Your task to perform on an android device: Open Youtube and go to "Your channel" Image 0: 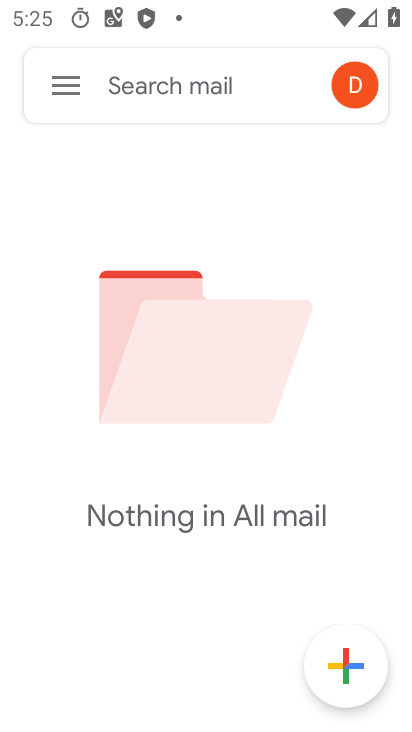
Step 0: press home button
Your task to perform on an android device: Open Youtube and go to "Your channel" Image 1: 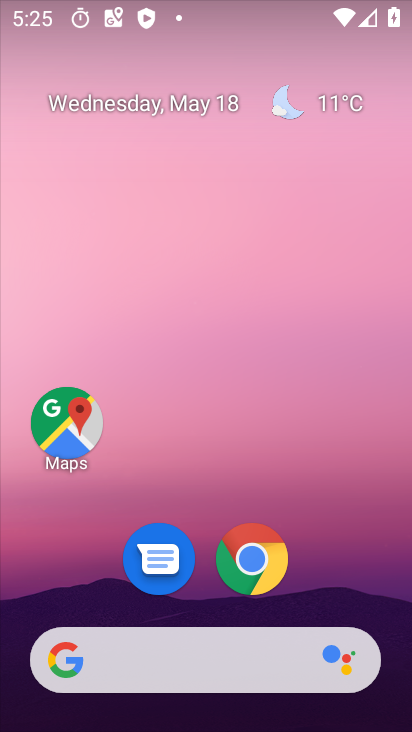
Step 1: drag from (194, 560) to (263, 18)
Your task to perform on an android device: Open Youtube and go to "Your channel" Image 2: 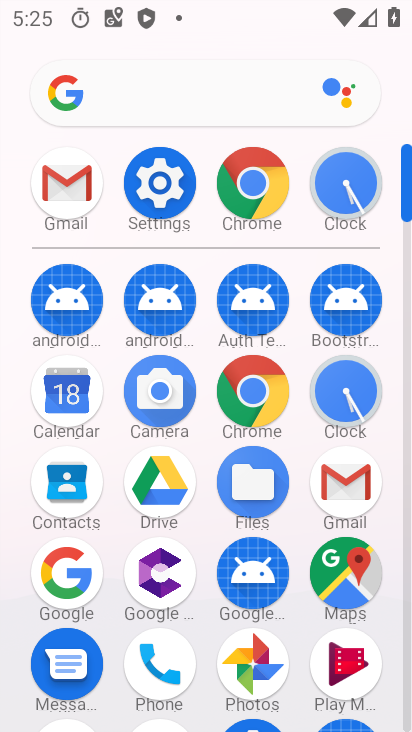
Step 2: drag from (215, 670) to (278, 58)
Your task to perform on an android device: Open Youtube and go to "Your channel" Image 3: 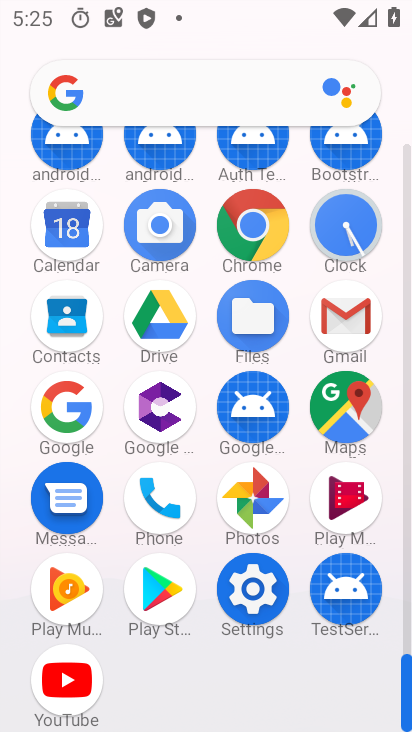
Step 3: click (43, 682)
Your task to perform on an android device: Open Youtube and go to "Your channel" Image 4: 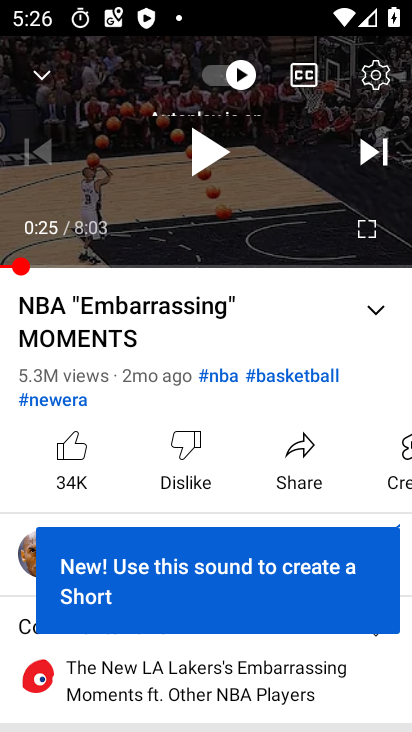
Step 4: click (46, 73)
Your task to perform on an android device: Open Youtube and go to "Your channel" Image 5: 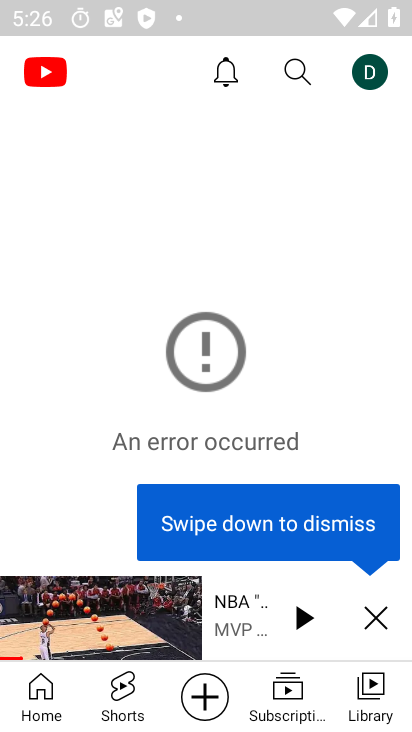
Step 5: click (371, 63)
Your task to perform on an android device: Open Youtube and go to "Your channel" Image 6: 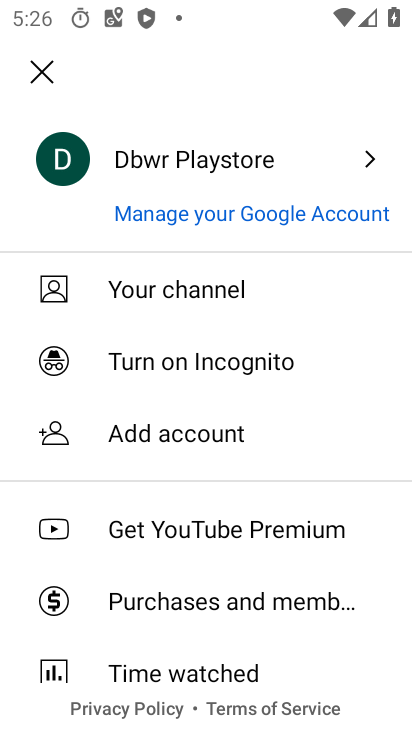
Step 6: click (165, 298)
Your task to perform on an android device: Open Youtube and go to "Your channel" Image 7: 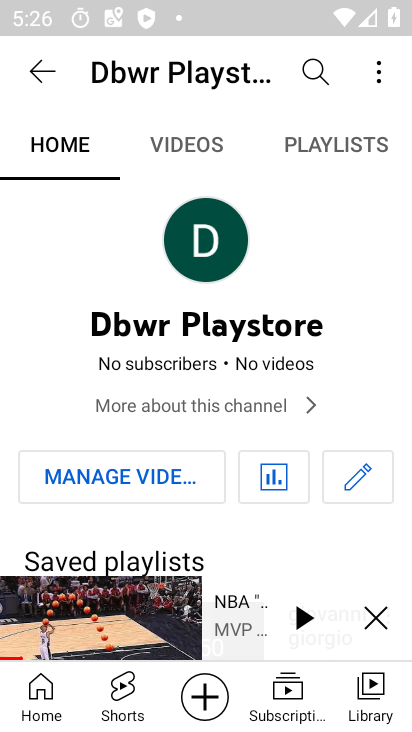
Step 7: task complete